Your task to perform on an android device: Open wifi settings Image 0: 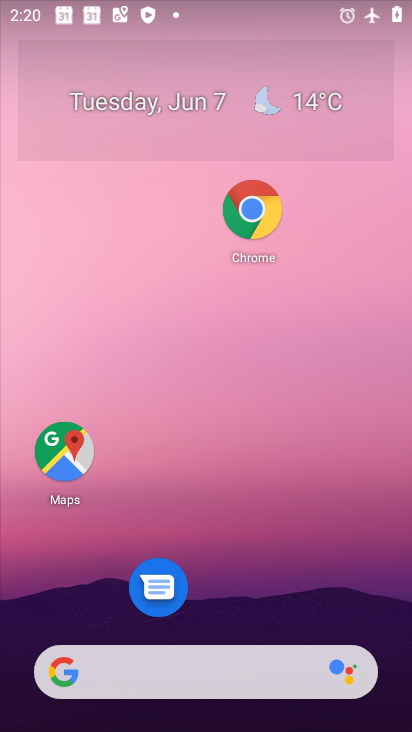
Step 0: drag from (309, 611) to (272, 58)
Your task to perform on an android device: Open wifi settings Image 1: 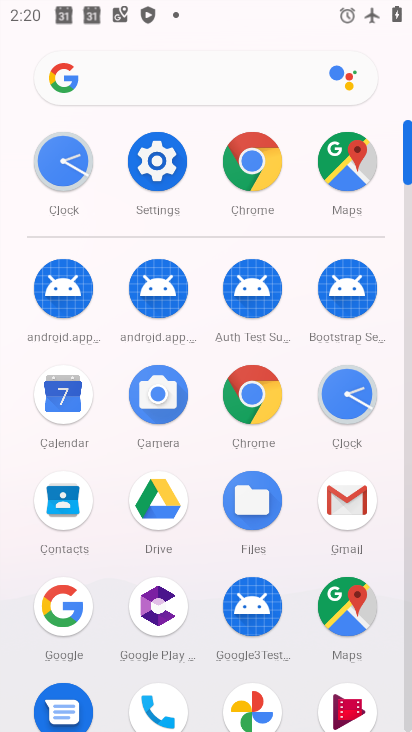
Step 1: click (168, 155)
Your task to perform on an android device: Open wifi settings Image 2: 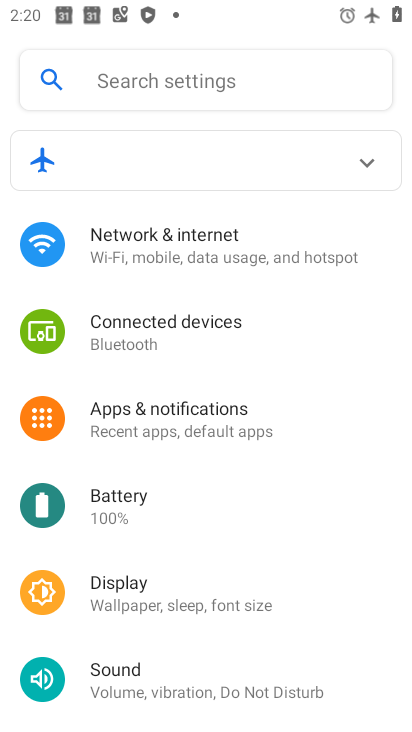
Step 2: click (161, 253)
Your task to perform on an android device: Open wifi settings Image 3: 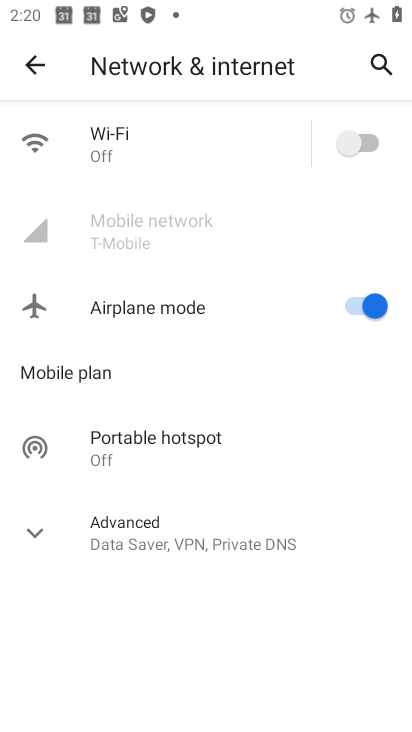
Step 3: click (159, 148)
Your task to perform on an android device: Open wifi settings Image 4: 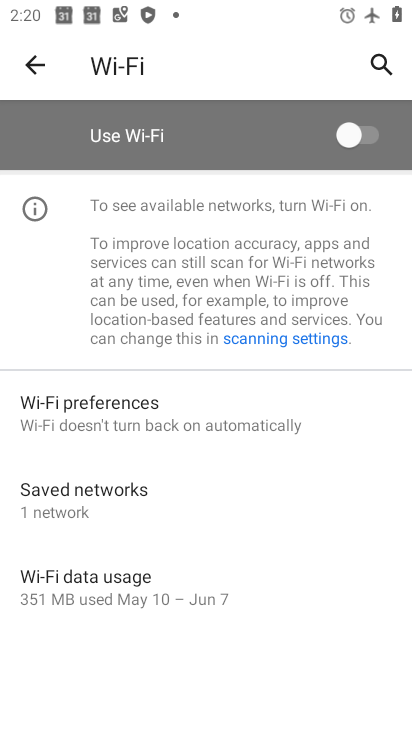
Step 4: task complete